Your task to perform on an android device: empty trash in google photos Image 0: 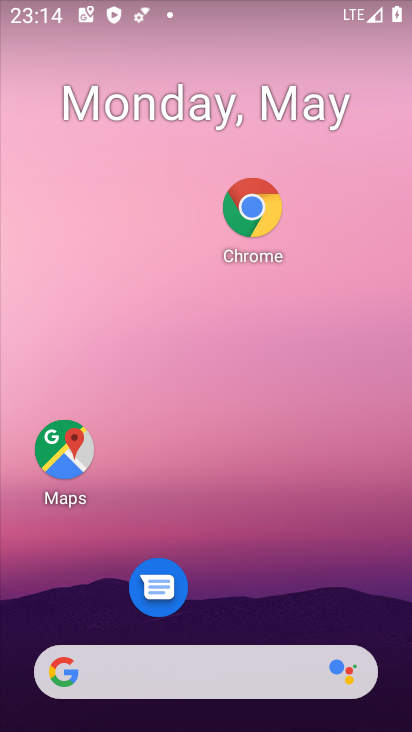
Step 0: drag from (294, 687) to (206, 123)
Your task to perform on an android device: empty trash in google photos Image 1: 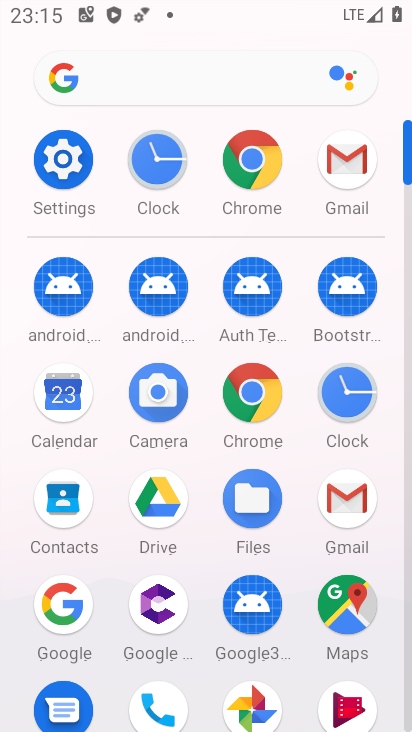
Step 1: drag from (292, 534) to (282, 146)
Your task to perform on an android device: empty trash in google photos Image 2: 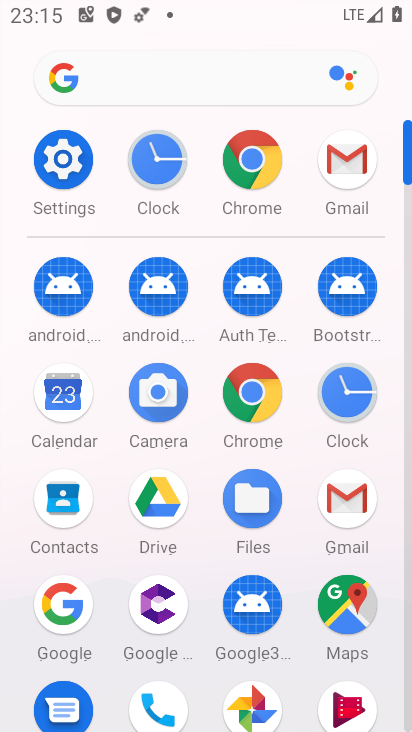
Step 2: drag from (297, 287) to (297, 126)
Your task to perform on an android device: empty trash in google photos Image 3: 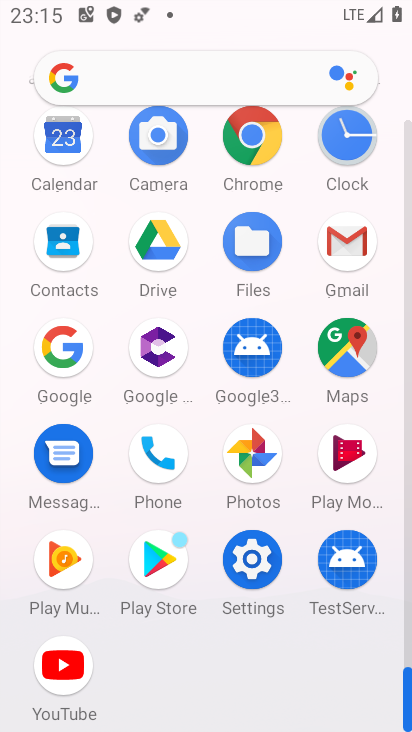
Step 3: click (260, 456)
Your task to perform on an android device: empty trash in google photos Image 4: 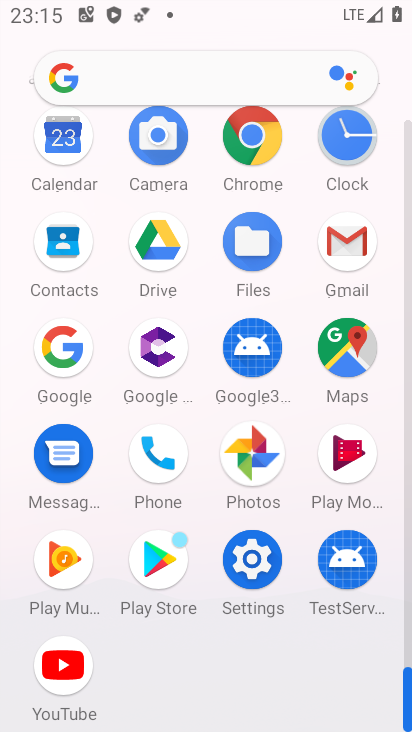
Step 4: click (260, 456)
Your task to perform on an android device: empty trash in google photos Image 5: 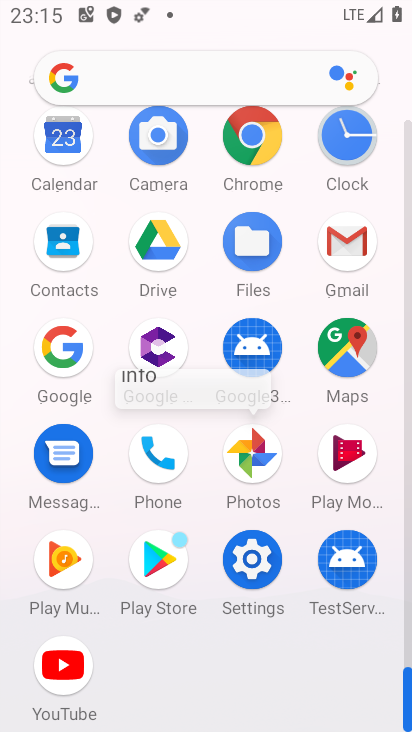
Step 5: click (260, 456)
Your task to perform on an android device: empty trash in google photos Image 6: 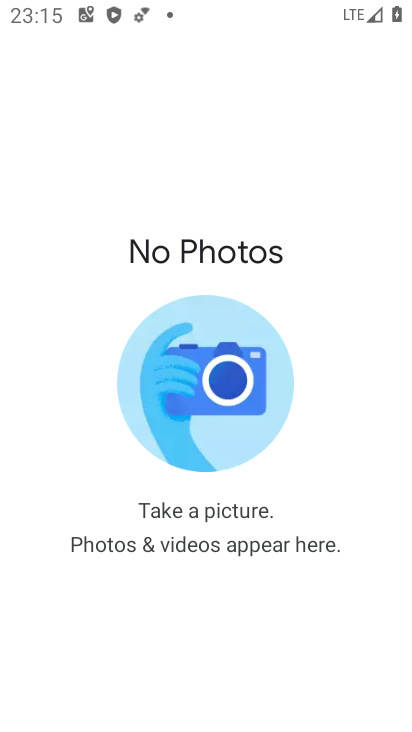
Step 6: click (260, 451)
Your task to perform on an android device: empty trash in google photos Image 7: 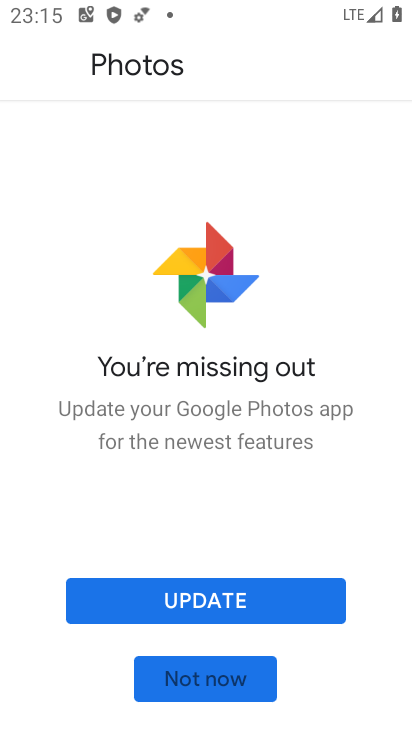
Step 7: click (195, 685)
Your task to perform on an android device: empty trash in google photos Image 8: 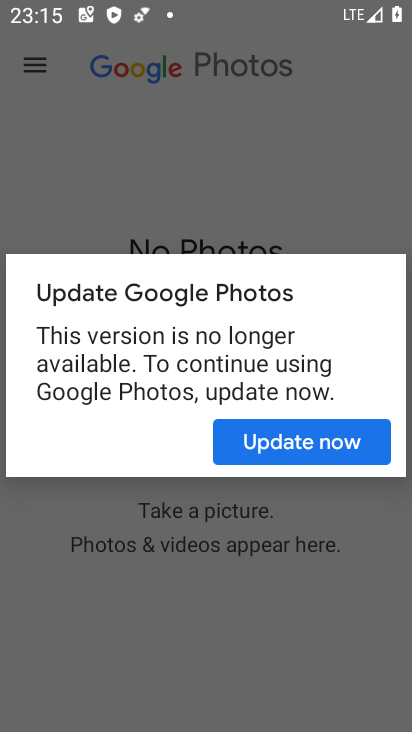
Step 8: click (318, 443)
Your task to perform on an android device: empty trash in google photos Image 9: 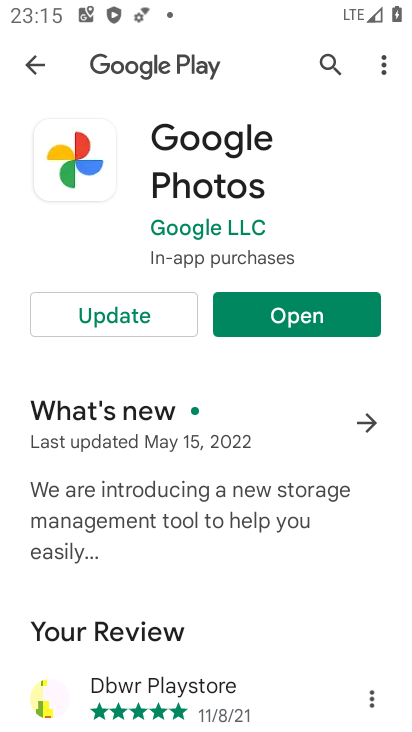
Step 9: click (121, 322)
Your task to perform on an android device: empty trash in google photos Image 10: 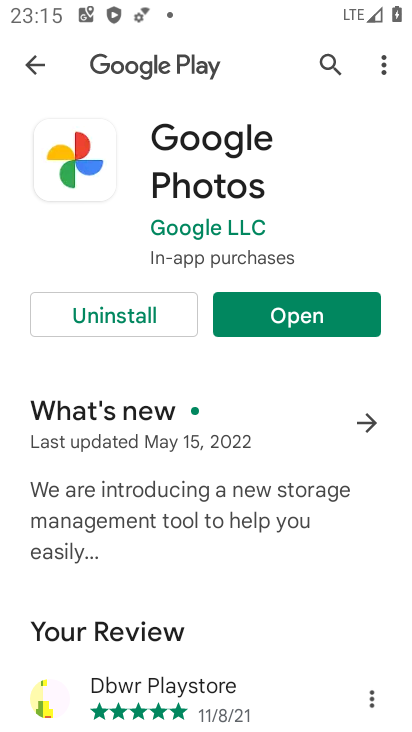
Step 10: click (296, 303)
Your task to perform on an android device: empty trash in google photos Image 11: 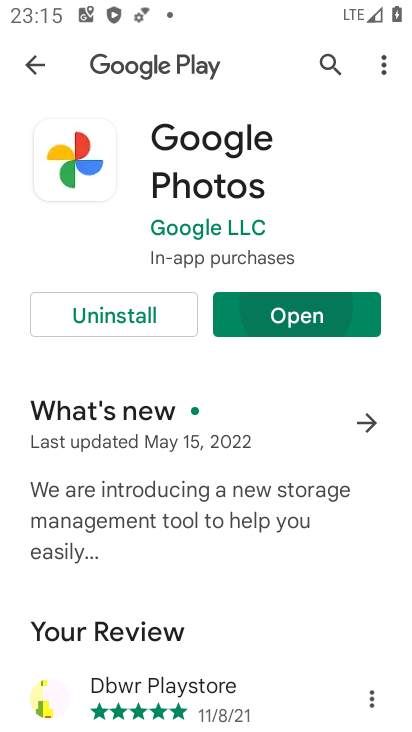
Step 11: click (296, 303)
Your task to perform on an android device: empty trash in google photos Image 12: 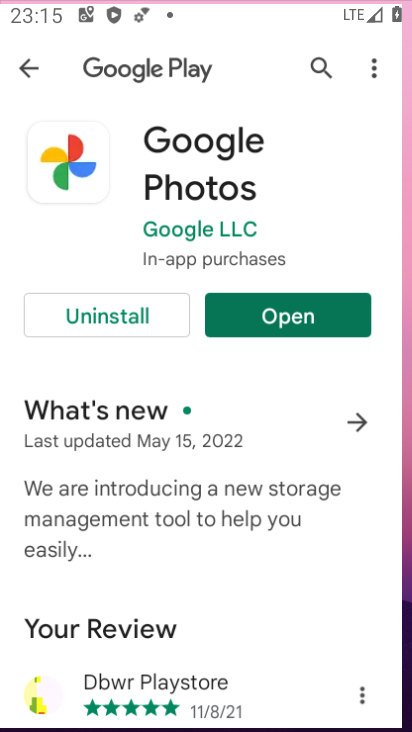
Step 12: click (300, 310)
Your task to perform on an android device: empty trash in google photos Image 13: 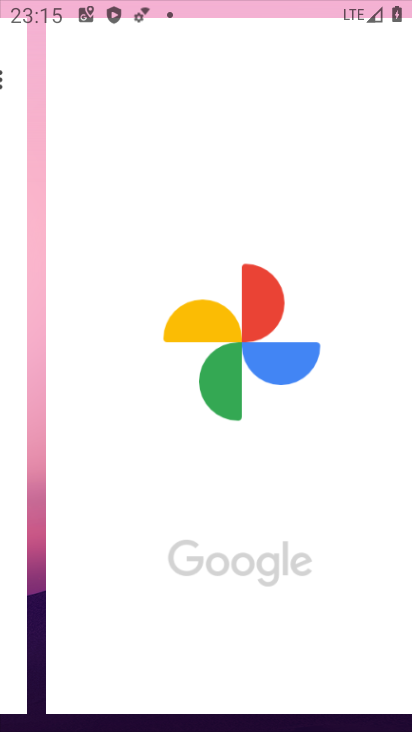
Step 13: click (301, 312)
Your task to perform on an android device: empty trash in google photos Image 14: 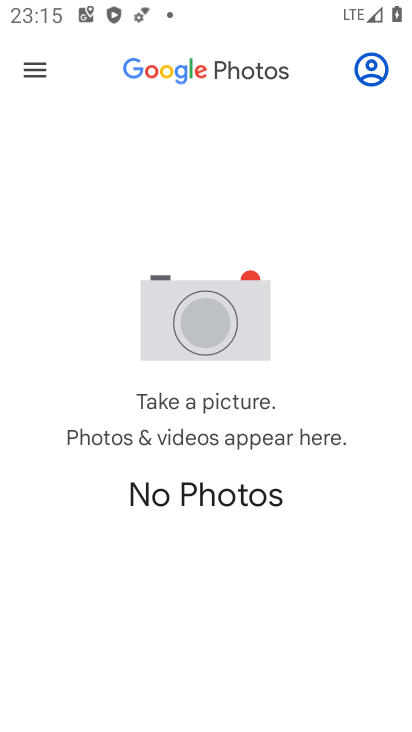
Step 14: task complete